Your task to perform on an android device: set an alarm Image 0: 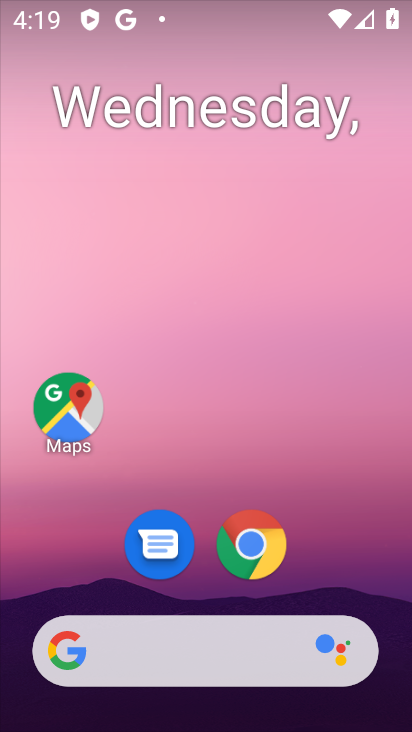
Step 0: drag from (378, 564) to (352, 219)
Your task to perform on an android device: set an alarm Image 1: 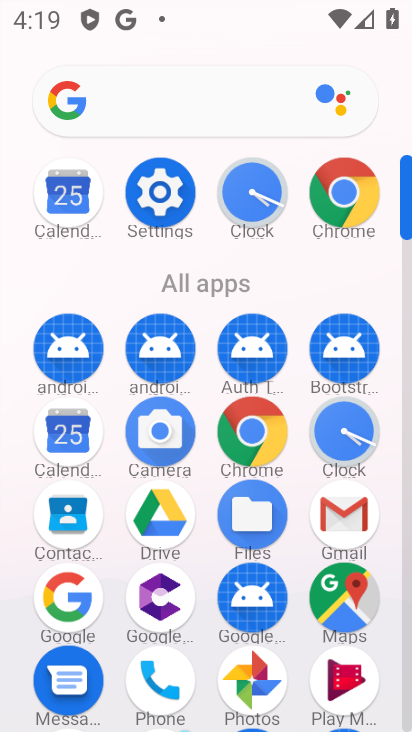
Step 1: click (349, 439)
Your task to perform on an android device: set an alarm Image 2: 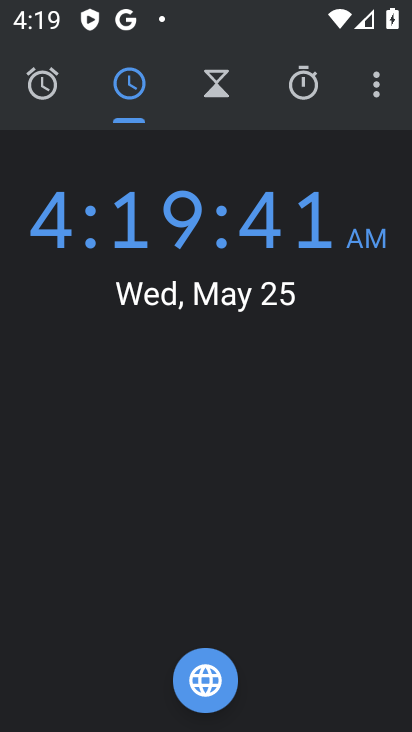
Step 2: click (50, 85)
Your task to perform on an android device: set an alarm Image 3: 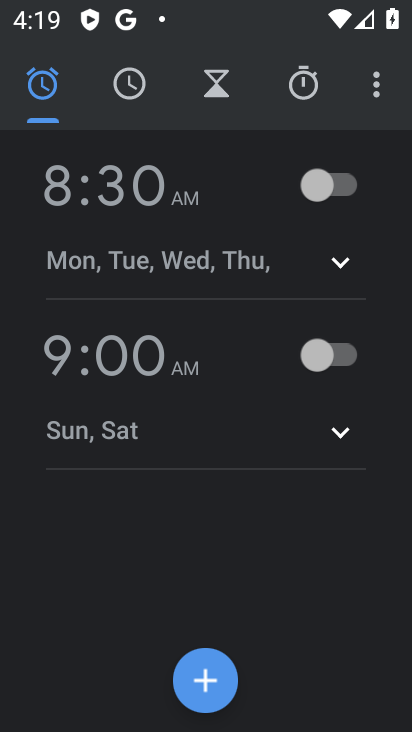
Step 3: click (218, 677)
Your task to perform on an android device: set an alarm Image 4: 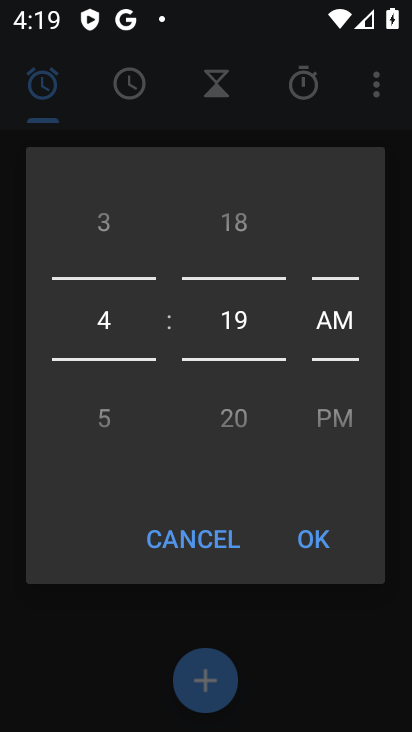
Step 4: click (309, 544)
Your task to perform on an android device: set an alarm Image 5: 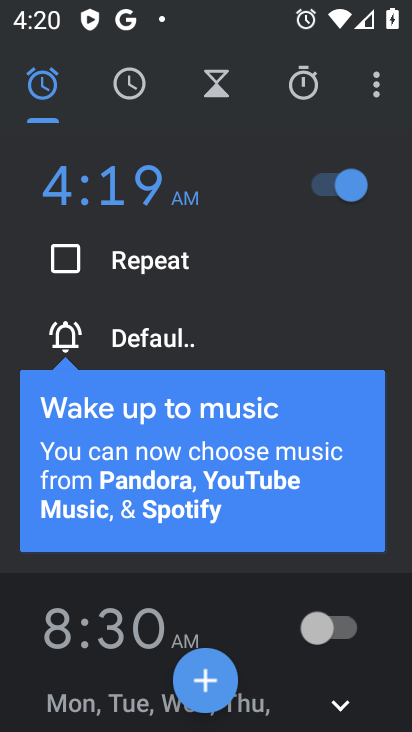
Step 5: task complete